Your task to perform on an android device: add a contact Image 0: 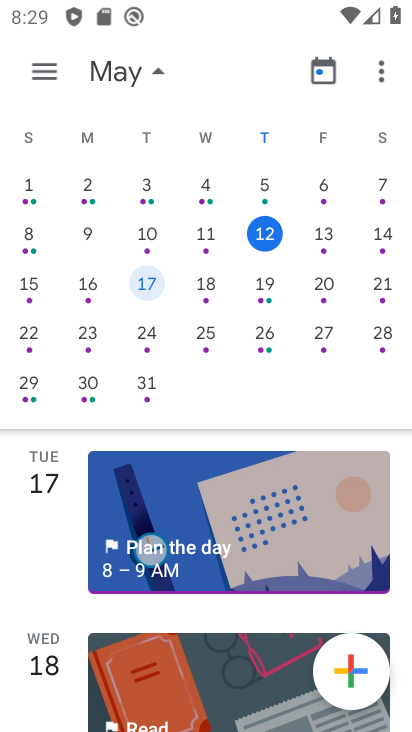
Step 0: press home button
Your task to perform on an android device: add a contact Image 1: 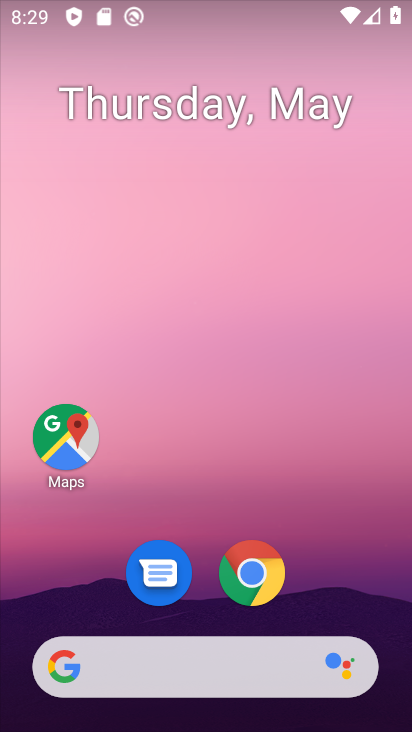
Step 1: drag from (366, 557) to (337, 126)
Your task to perform on an android device: add a contact Image 2: 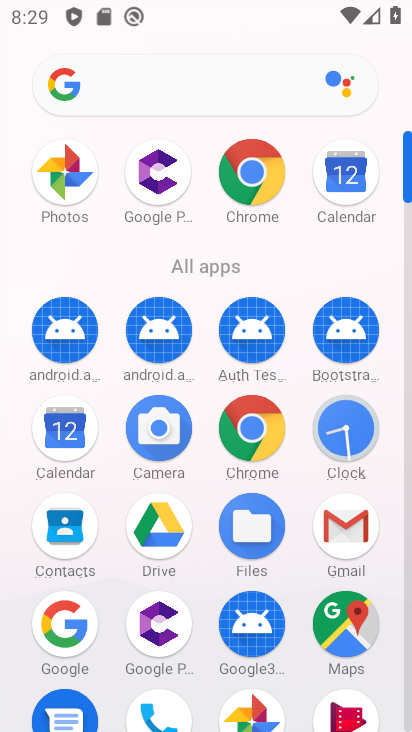
Step 2: click (83, 538)
Your task to perform on an android device: add a contact Image 3: 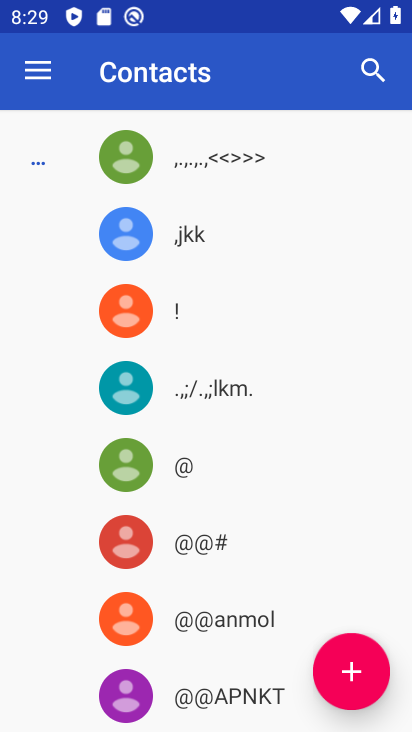
Step 3: click (346, 673)
Your task to perform on an android device: add a contact Image 4: 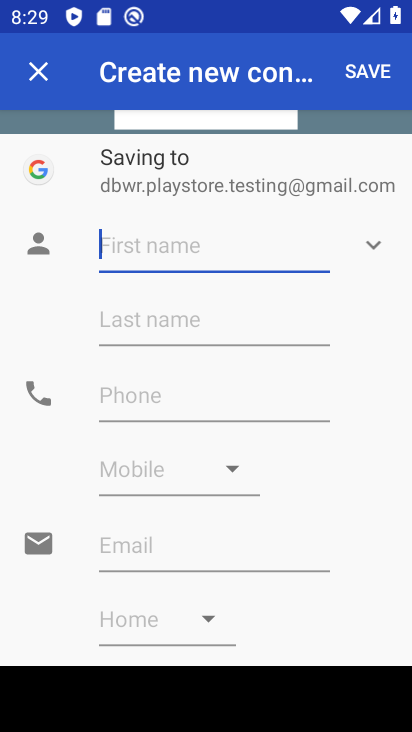
Step 4: type "Ramu kaka"
Your task to perform on an android device: add a contact Image 5: 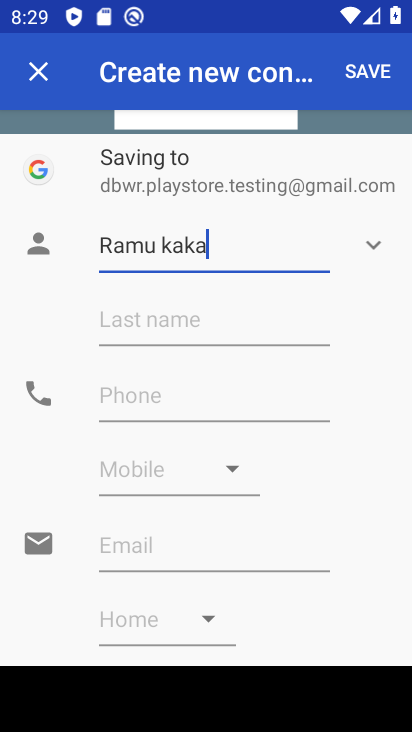
Step 5: click (196, 402)
Your task to perform on an android device: add a contact Image 6: 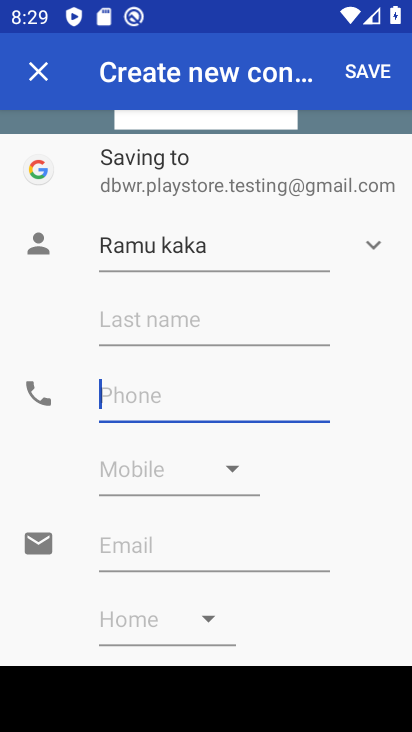
Step 6: type "98967354212"
Your task to perform on an android device: add a contact Image 7: 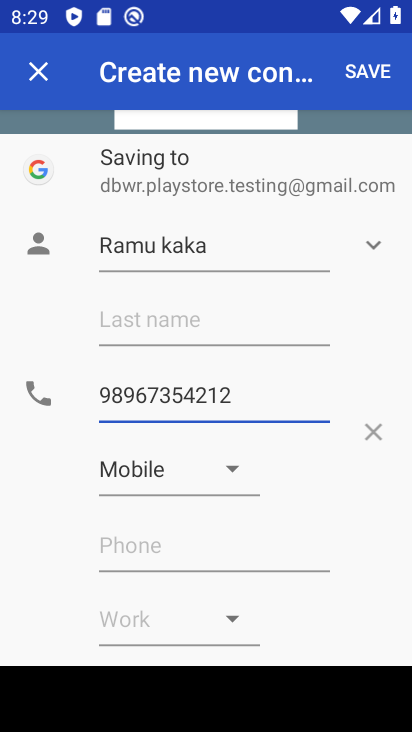
Step 7: click (372, 70)
Your task to perform on an android device: add a contact Image 8: 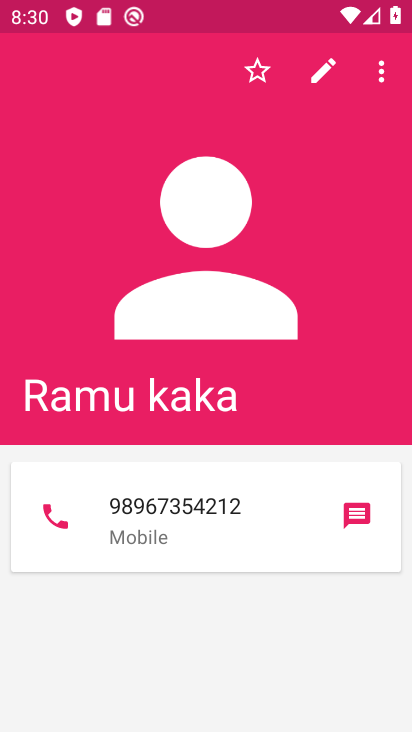
Step 8: task complete